Your task to perform on an android device: What is the news today? Image 0: 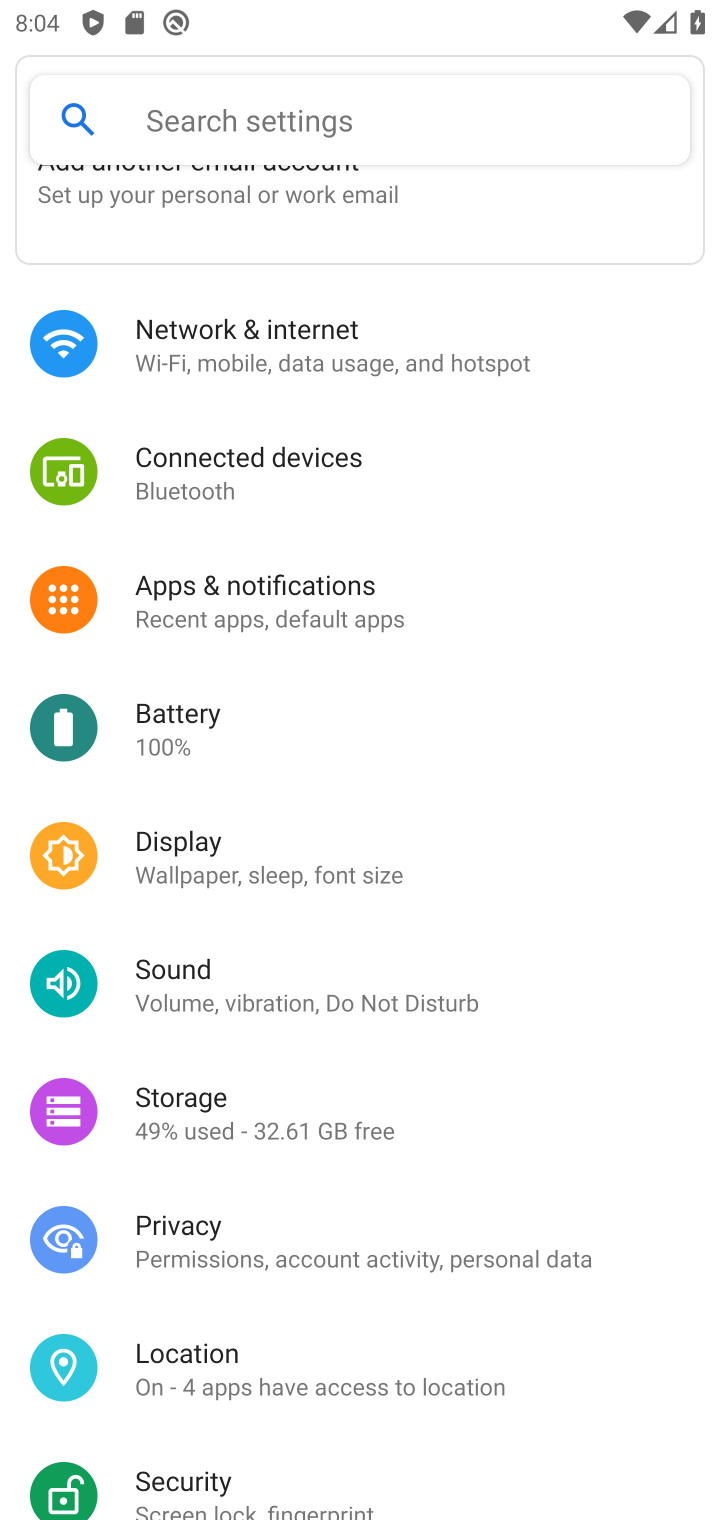
Step 0: press home button
Your task to perform on an android device: What is the news today? Image 1: 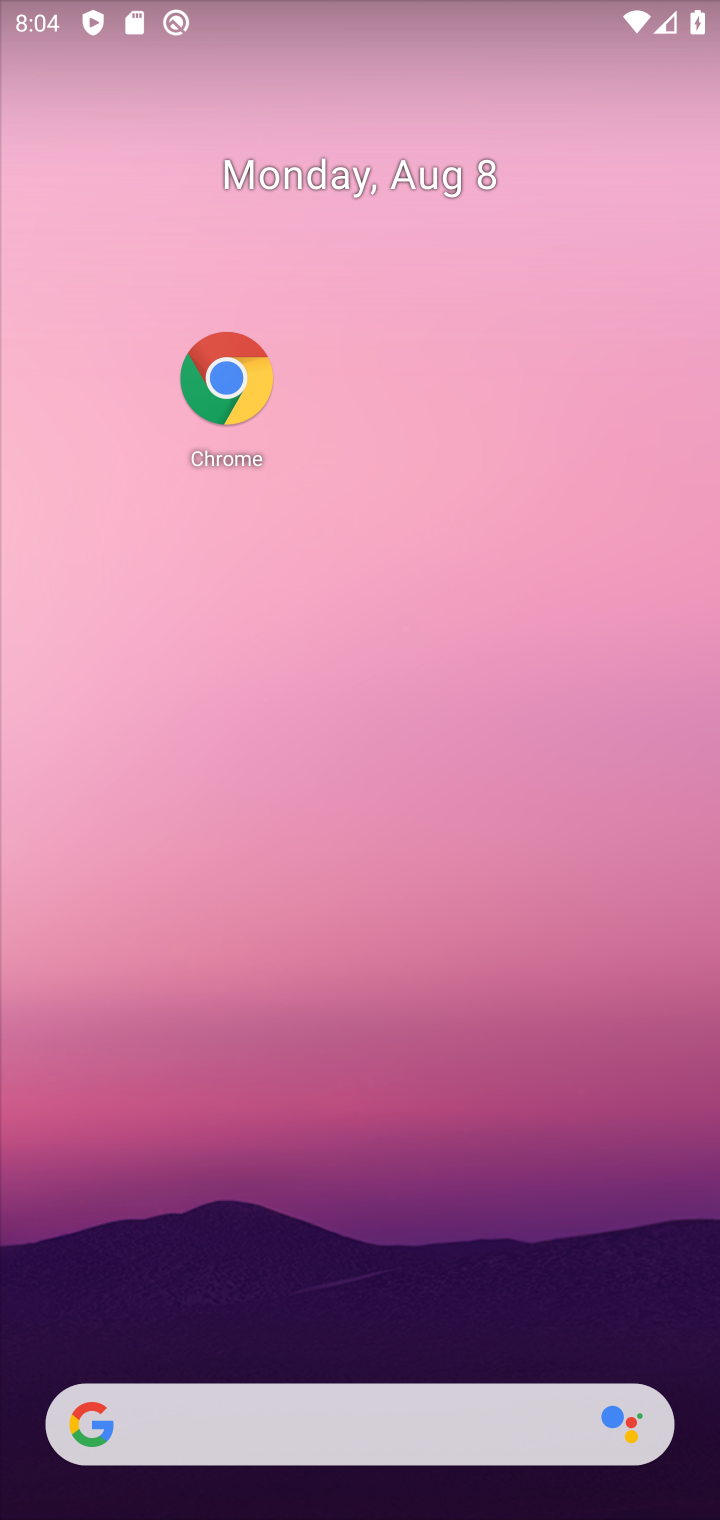
Step 1: drag from (278, 1394) to (352, 73)
Your task to perform on an android device: What is the news today? Image 2: 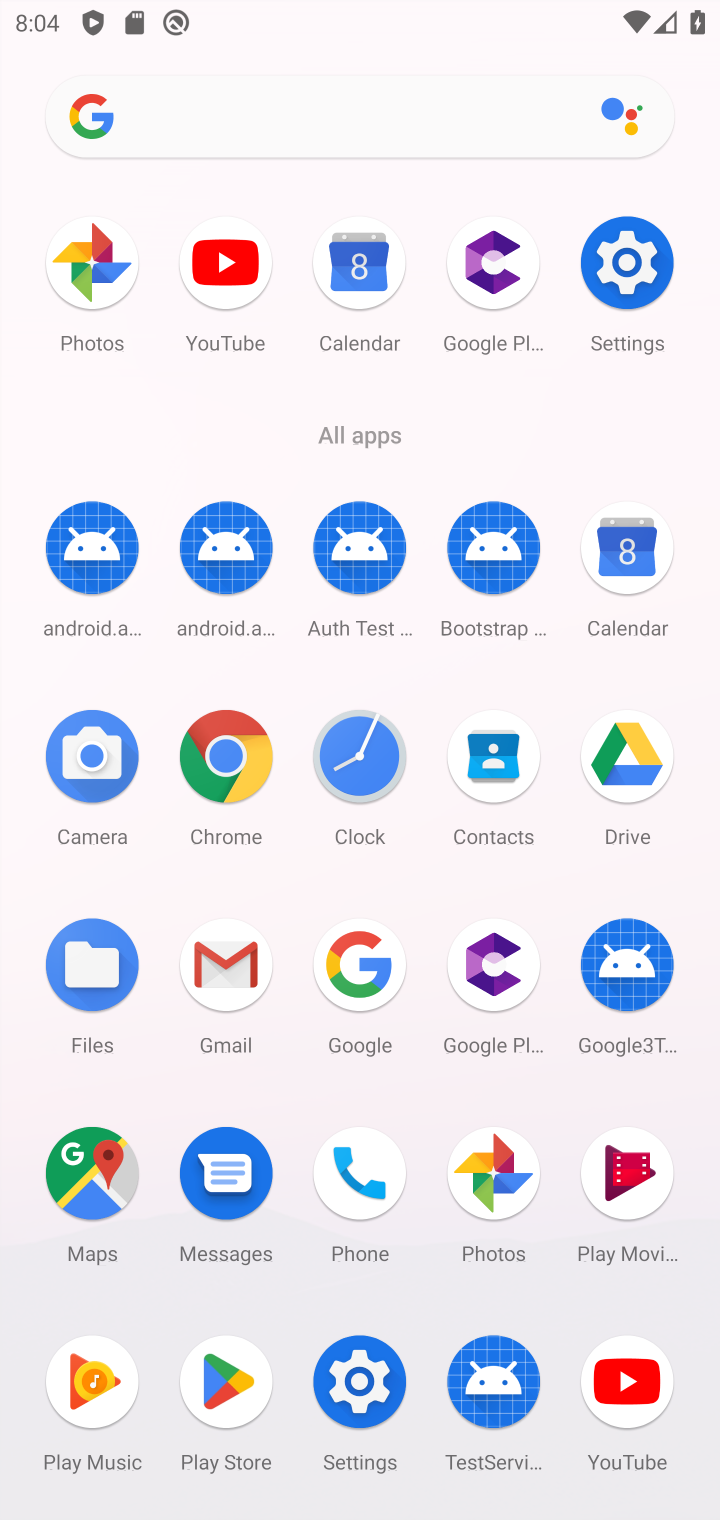
Step 2: click (214, 753)
Your task to perform on an android device: What is the news today? Image 3: 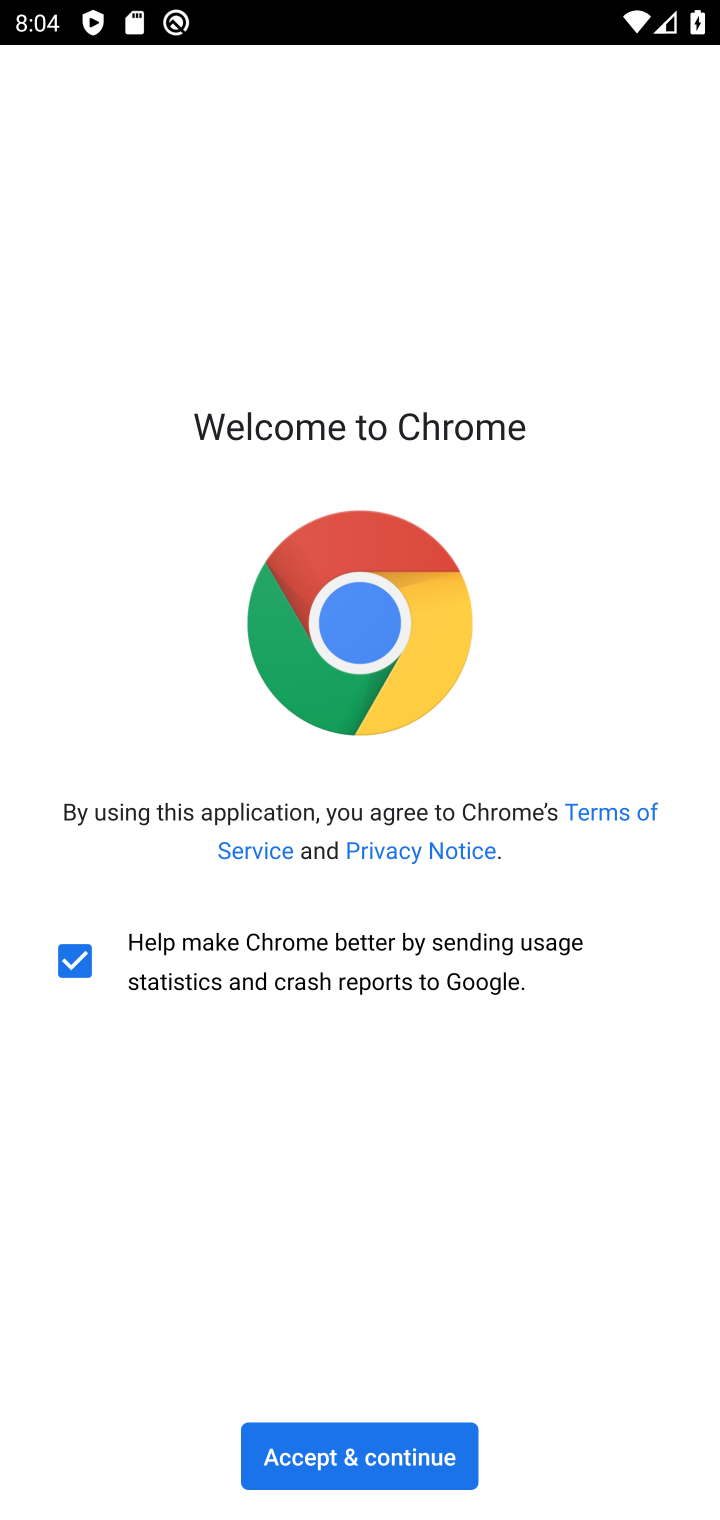
Step 3: click (321, 1484)
Your task to perform on an android device: What is the news today? Image 4: 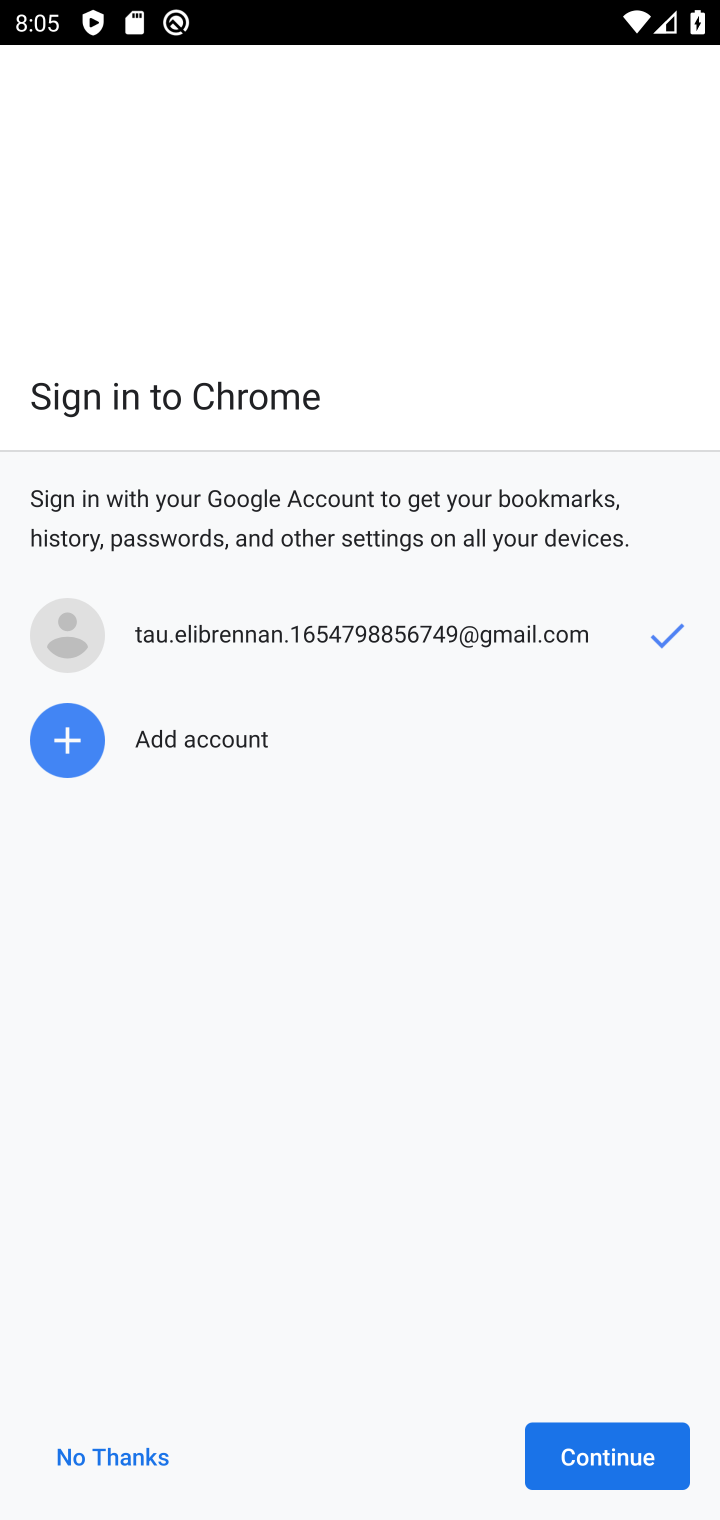
Step 4: click (123, 1463)
Your task to perform on an android device: What is the news today? Image 5: 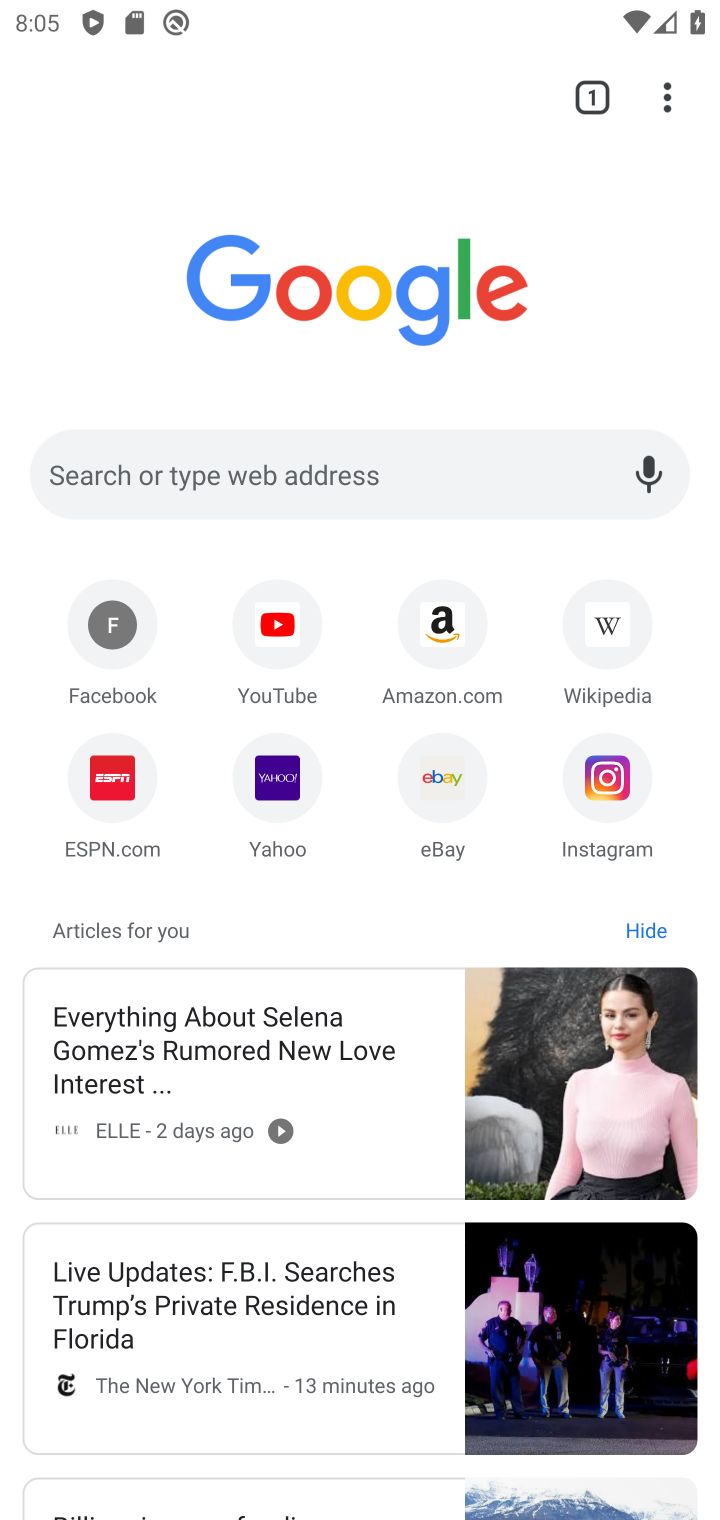
Step 5: task complete